Your task to perform on an android device: add a contact in the contacts app Image 0: 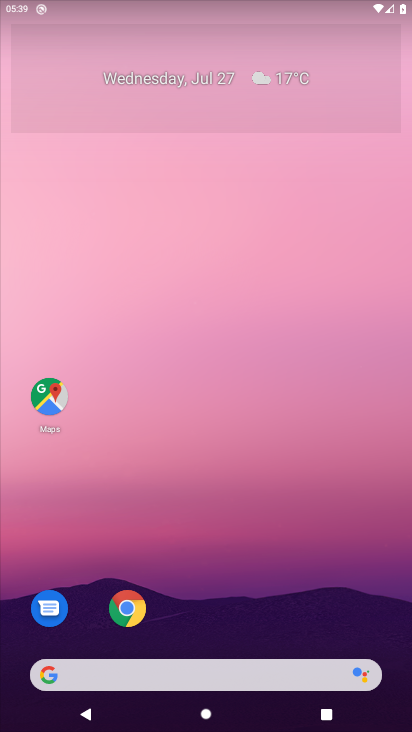
Step 0: press home button
Your task to perform on an android device: add a contact in the contacts app Image 1: 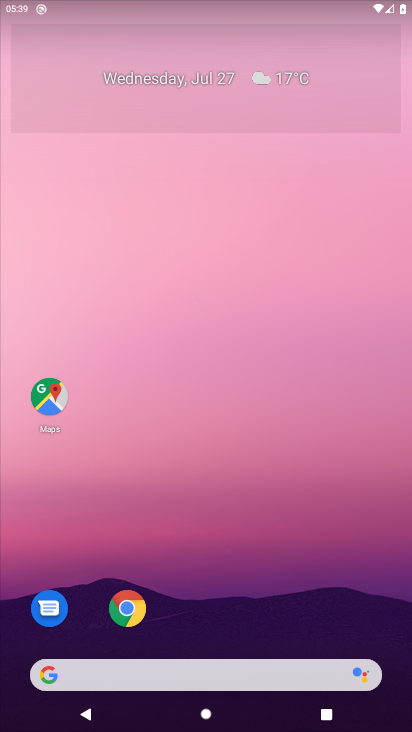
Step 1: drag from (198, 638) to (340, 51)
Your task to perform on an android device: add a contact in the contacts app Image 2: 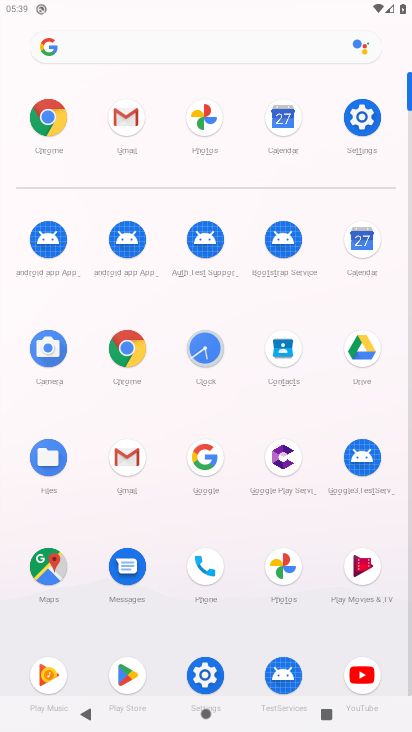
Step 2: click (281, 347)
Your task to perform on an android device: add a contact in the contacts app Image 3: 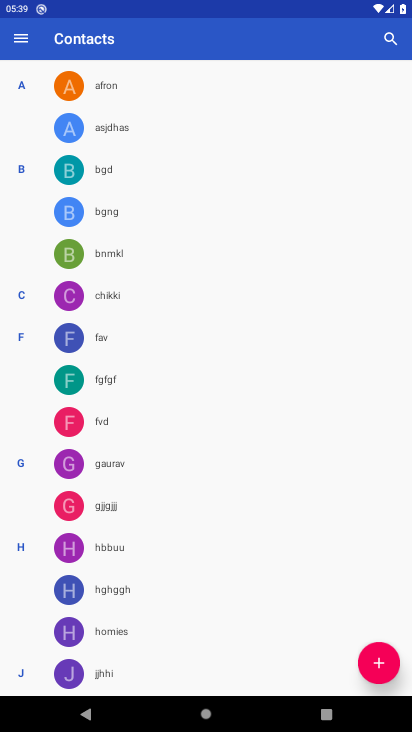
Step 3: click (377, 663)
Your task to perform on an android device: add a contact in the contacts app Image 4: 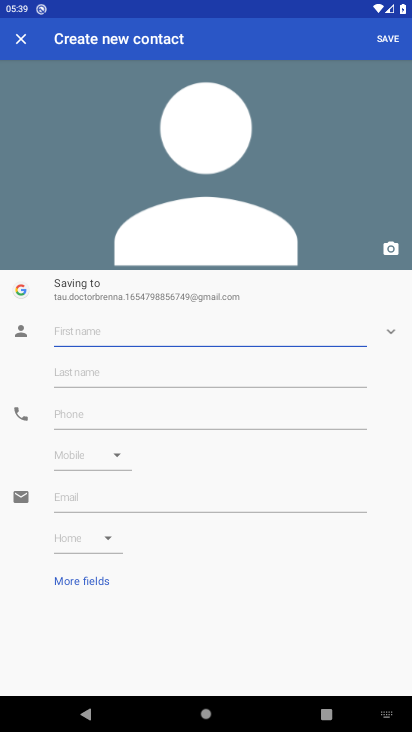
Step 4: type "ghgjgjgjgj"
Your task to perform on an android device: add a contact in the contacts app Image 5: 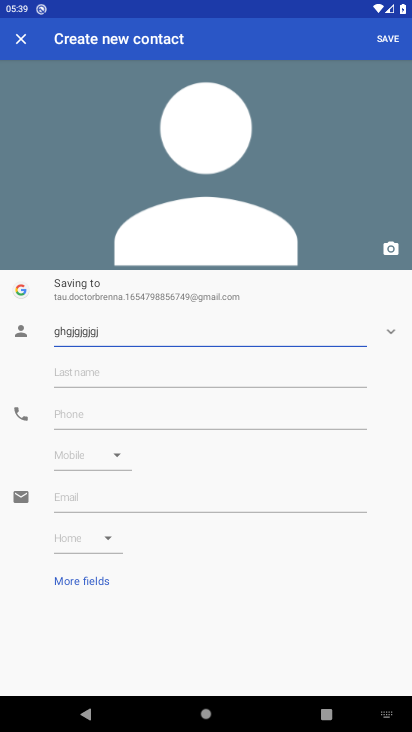
Step 5: click (119, 398)
Your task to perform on an android device: add a contact in the contacts app Image 6: 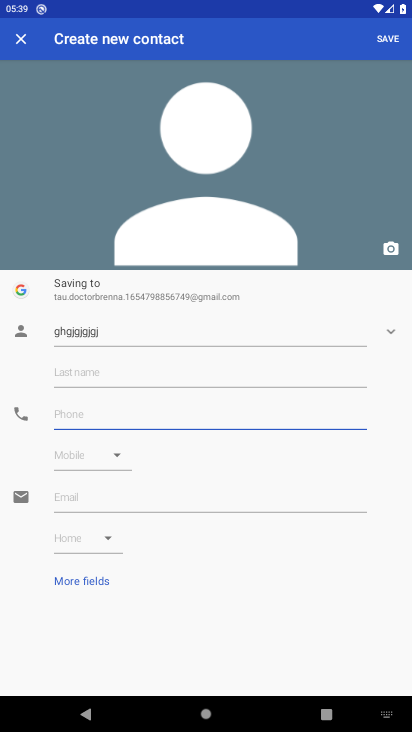
Step 6: type "66767676"
Your task to perform on an android device: add a contact in the contacts app Image 7: 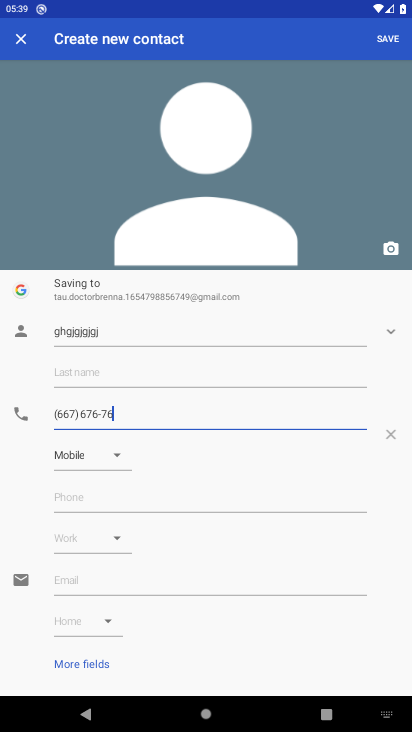
Step 7: click (388, 37)
Your task to perform on an android device: add a contact in the contacts app Image 8: 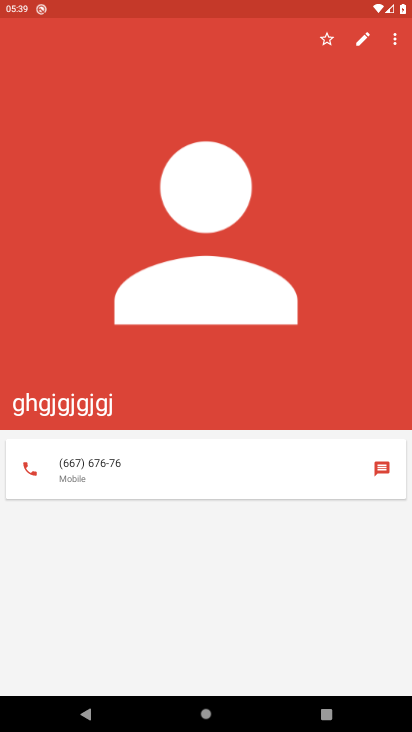
Step 8: task complete